Your task to perform on an android device: Do I have any events tomorrow? Image 0: 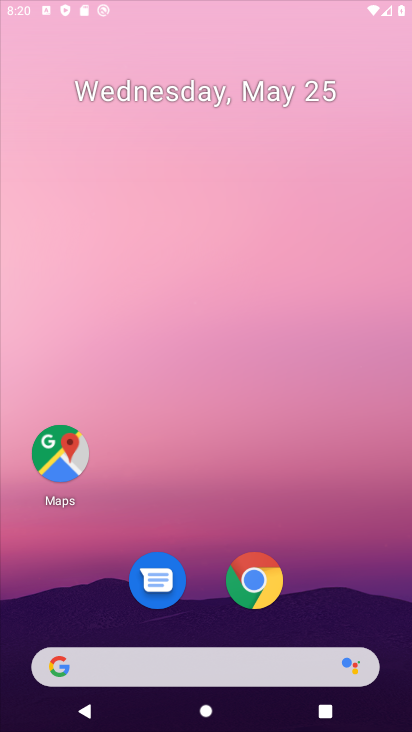
Step 0: click (218, 665)
Your task to perform on an android device: Do I have any events tomorrow? Image 1: 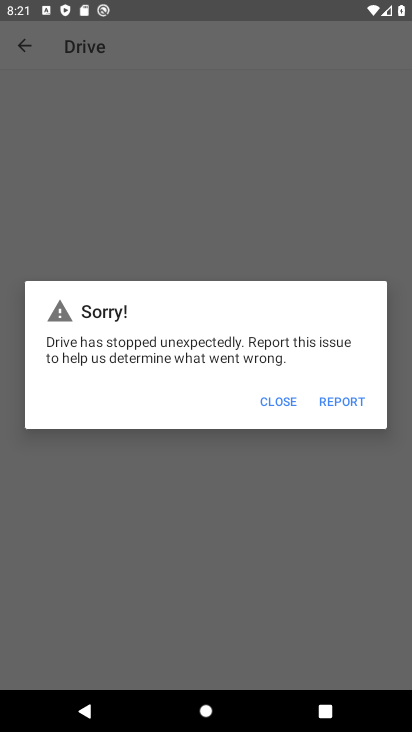
Step 1: press home button
Your task to perform on an android device: Do I have any events tomorrow? Image 2: 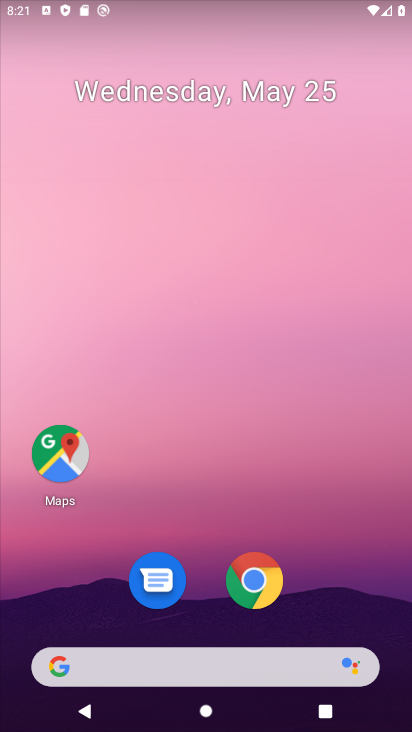
Step 2: drag from (16, 543) to (204, 117)
Your task to perform on an android device: Do I have any events tomorrow? Image 3: 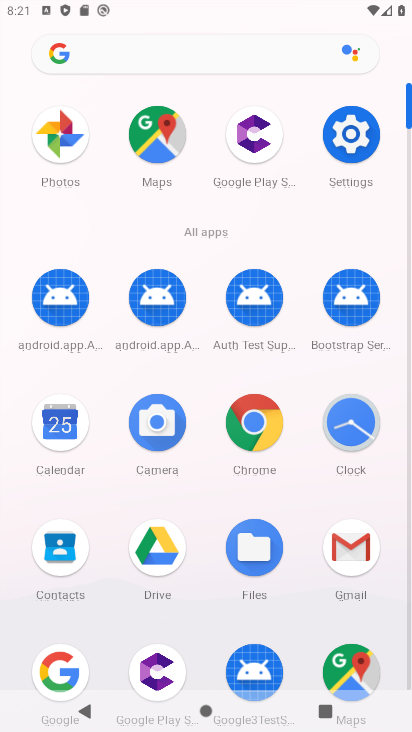
Step 3: click (72, 416)
Your task to perform on an android device: Do I have any events tomorrow? Image 4: 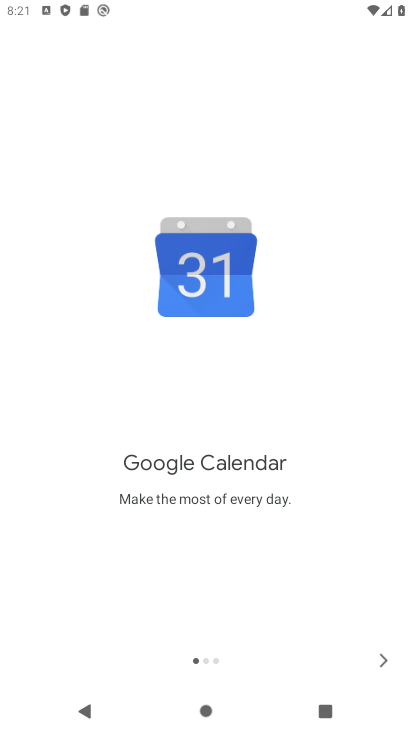
Step 4: click (383, 658)
Your task to perform on an android device: Do I have any events tomorrow? Image 5: 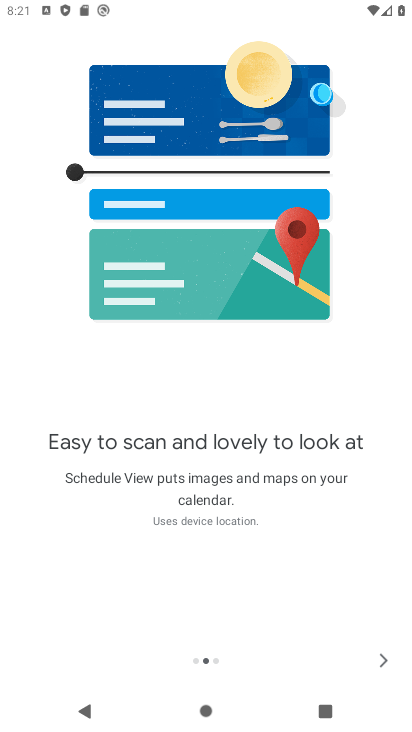
Step 5: click (383, 658)
Your task to perform on an android device: Do I have any events tomorrow? Image 6: 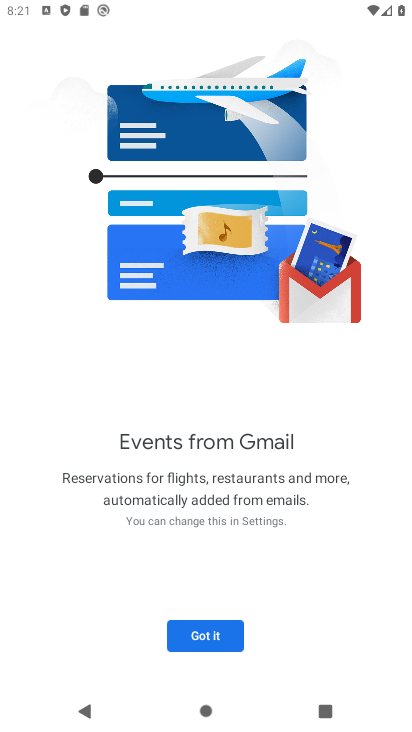
Step 6: click (220, 635)
Your task to perform on an android device: Do I have any events tomorrow? Image 7: 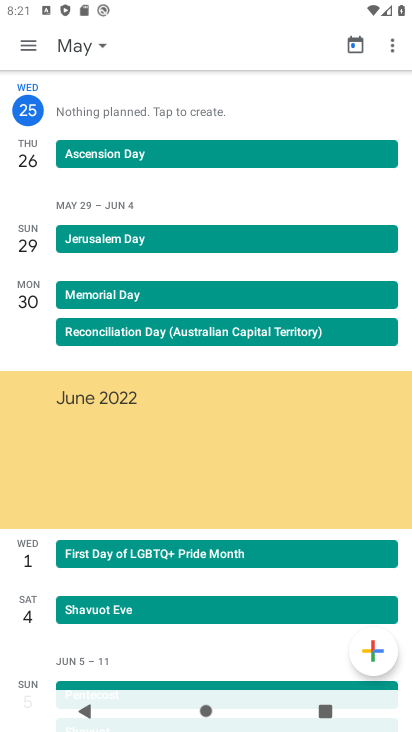
Step 7: click (83, 38)
Your task to perform on an android device: Do I have any events tomorrow? Image 8: 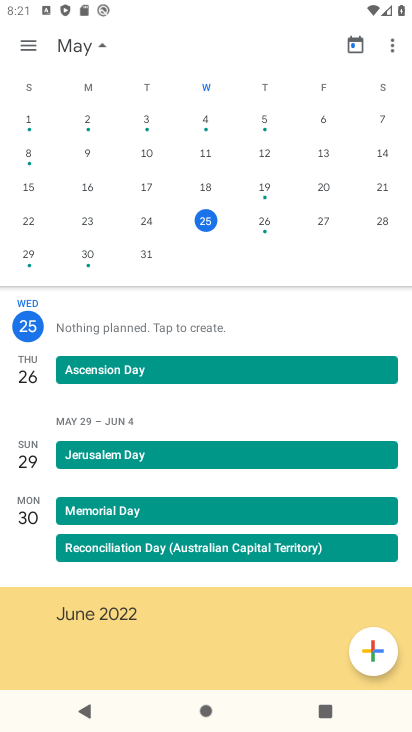
Step 8: click (263, 221)
Your task to perform on an android device: Do I have any events tomorrow? Image 9: 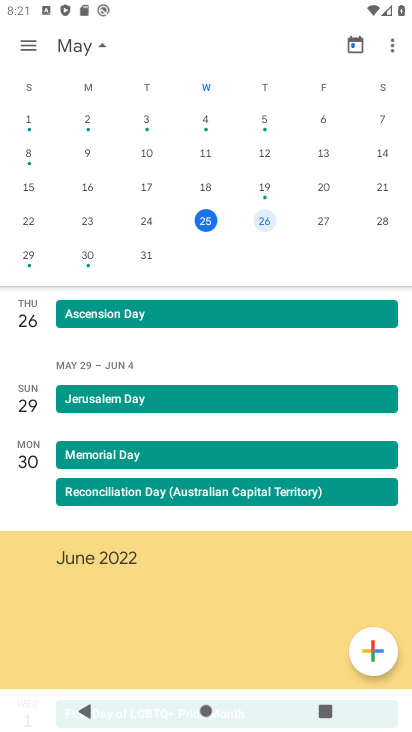
Step 9: task complete